Your task to perform on an android device: turn on wifi Image 0: 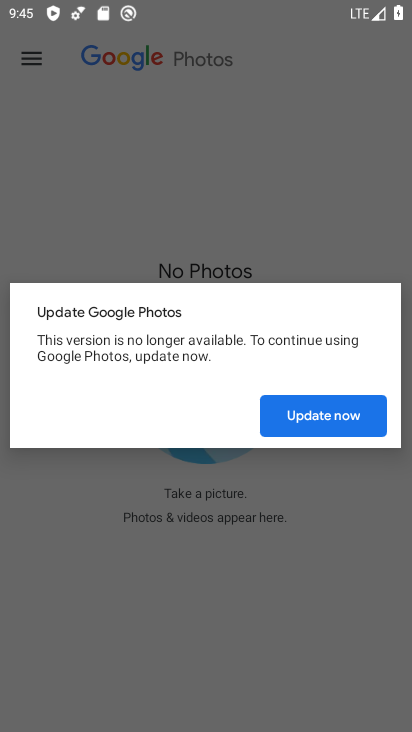
Step 0: press home button
Your task to perform on an android device: turn on wifi Image 1: 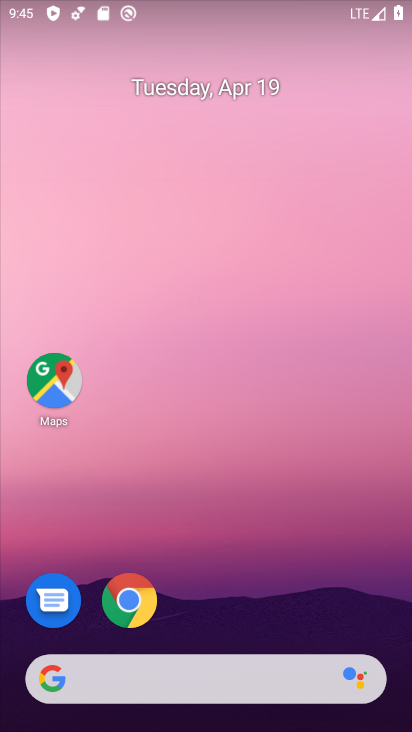
Step 1: drag from (279, 5) to (306, 559)
Your task to perform on an android device: turn on wifi Image 2: 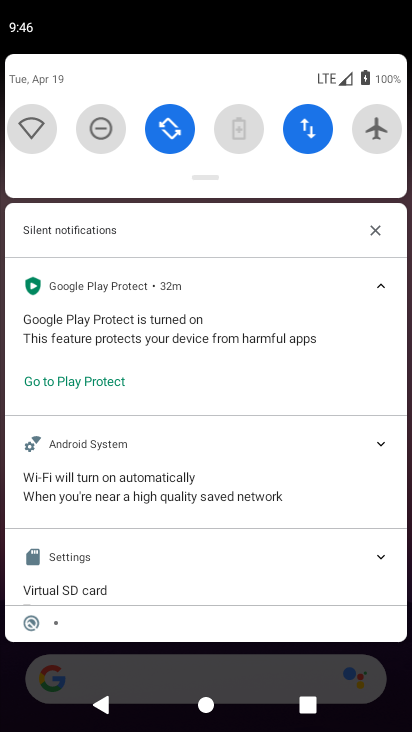
Step 2: click (41, 132)
Your task to perform on an android device: turn on wifi Image 3: 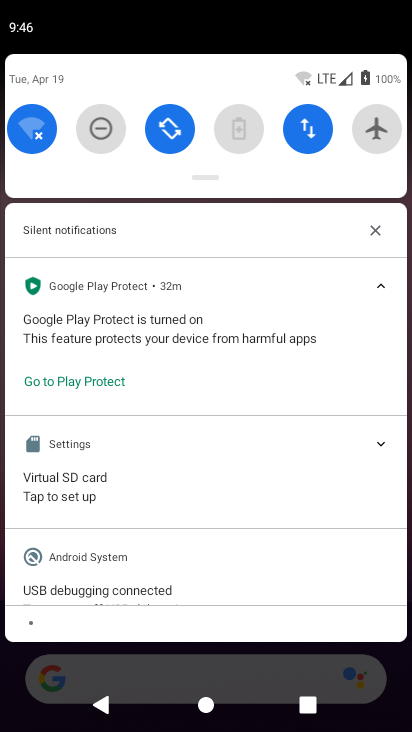
Step 3: task complete